Your task to perform on an android device: Go to network settings Image 0: 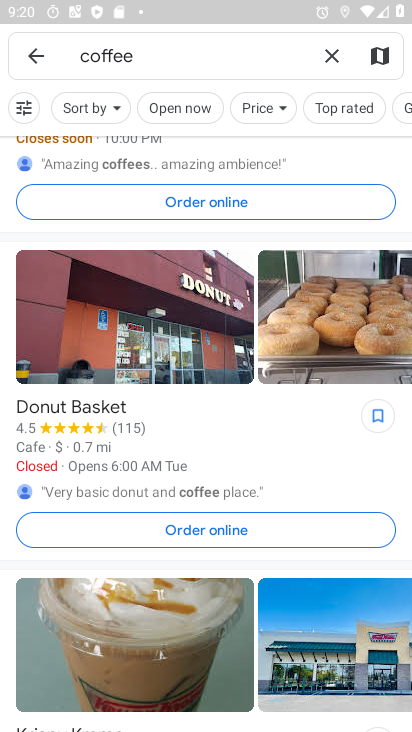
Step 0: press home button
Your task to perform on an android device: Go to network settings Image 1: 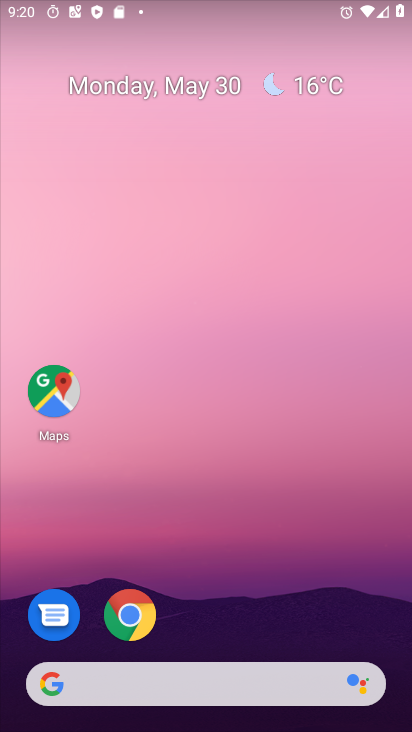
Step 1: drag from (306, 624) to (319, 53)
Your task to perform on an android device: Go to network settings Image 2: 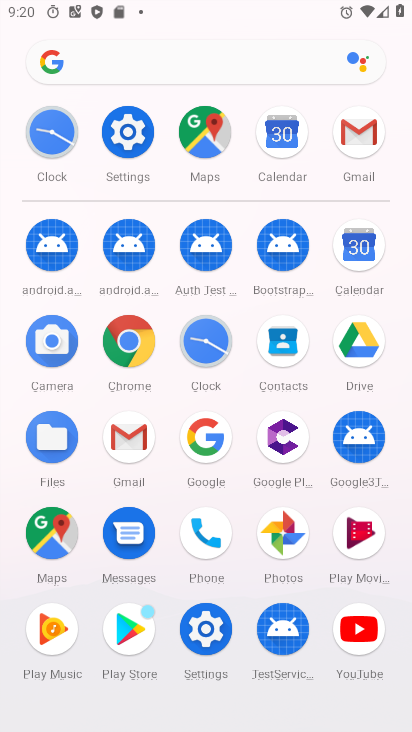
Step 2: click (146, 137)
Your task to perform on an android device: Go to network settings Image 3: 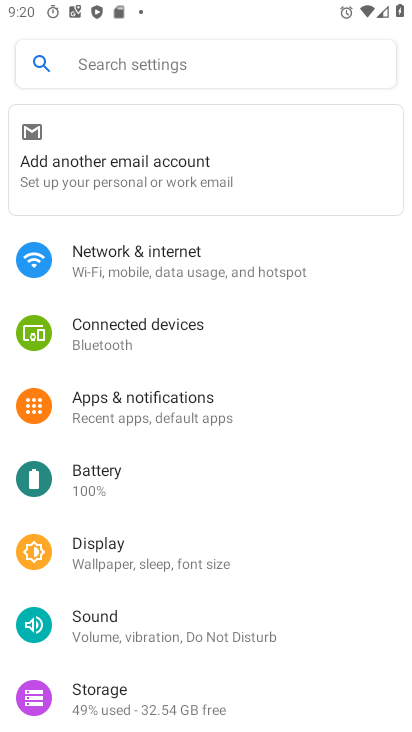
Step 3: click (192, 257)
Your task to perform on an android device: Go to network settings Image 4: 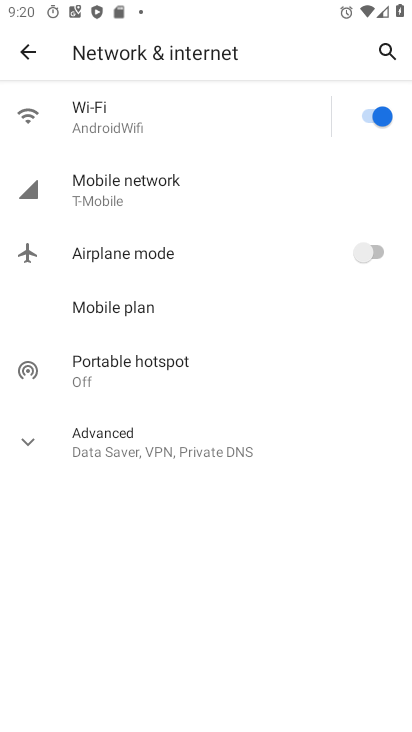
Step 4: task complete